Your task to perform on an android device: Do I have any events this weekend? Image 0: 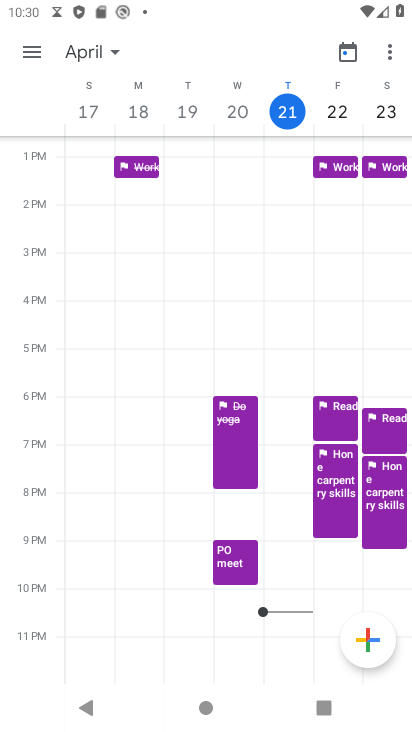
Step 0: task complete